Your task to perform on an android device: Clear the cart on bestbuy.com. Search for "logitech g502" on bestbuy.com, select the first entry, add it to the cart, then select checkout. Image 0: 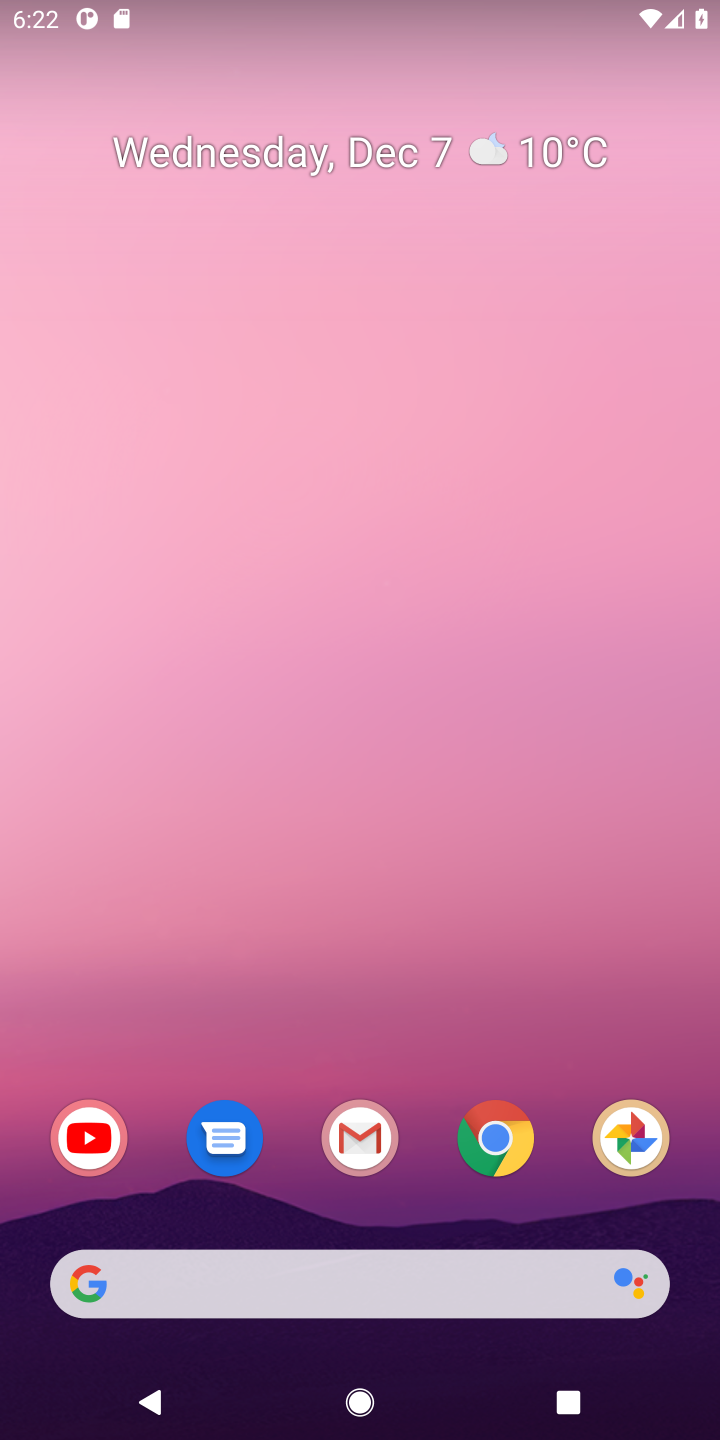
Step 0: press home button
Your task to perform on an android device: Clear the cart on bestbuy.com. Search for "logitech g502" on bestbuy.com, select the first entry, add it to the cart, then select checkout. Image 1: 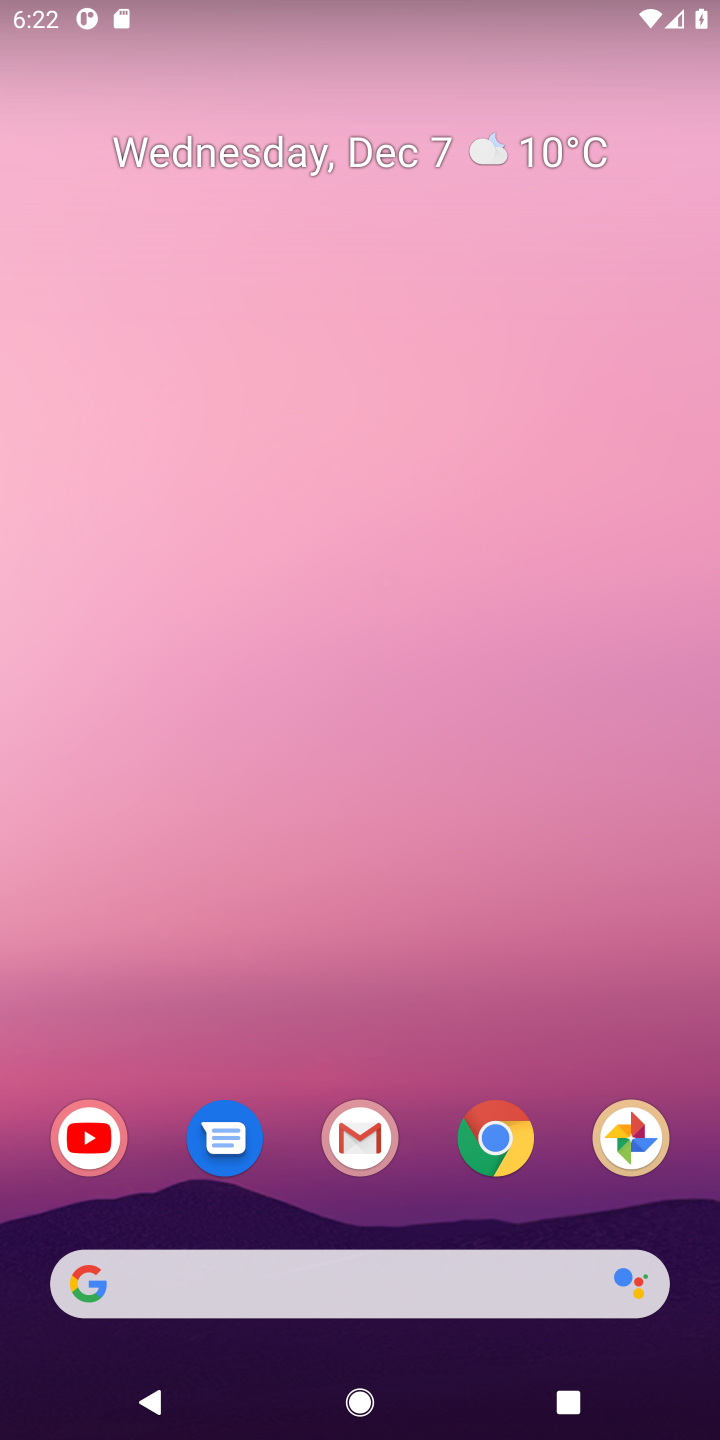
Step 1: click (140, 1283)
Your task to perform on an android device: Clear the cart on bestbuy.com. Search for "logitech g502" on bestbuy.com, select the first entry, add it to the cart, then select checkout. Image 2: 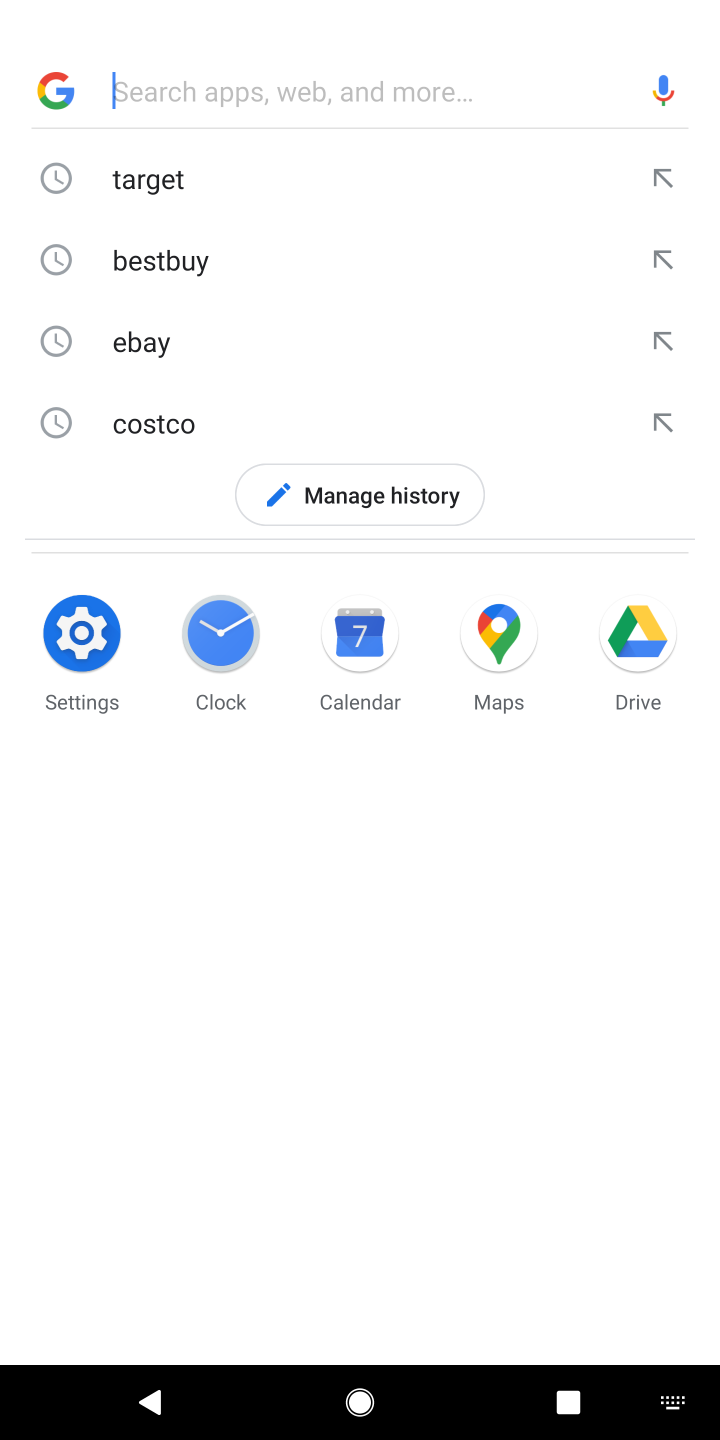
Step 2: type " bestbuy.com"
Your task to perform on an android device: Clear the cart on bestbuy.com. Search for "logitech g502" on bestbuy.com, select the first entry, add it to the cart, then select checkout. Image 3: 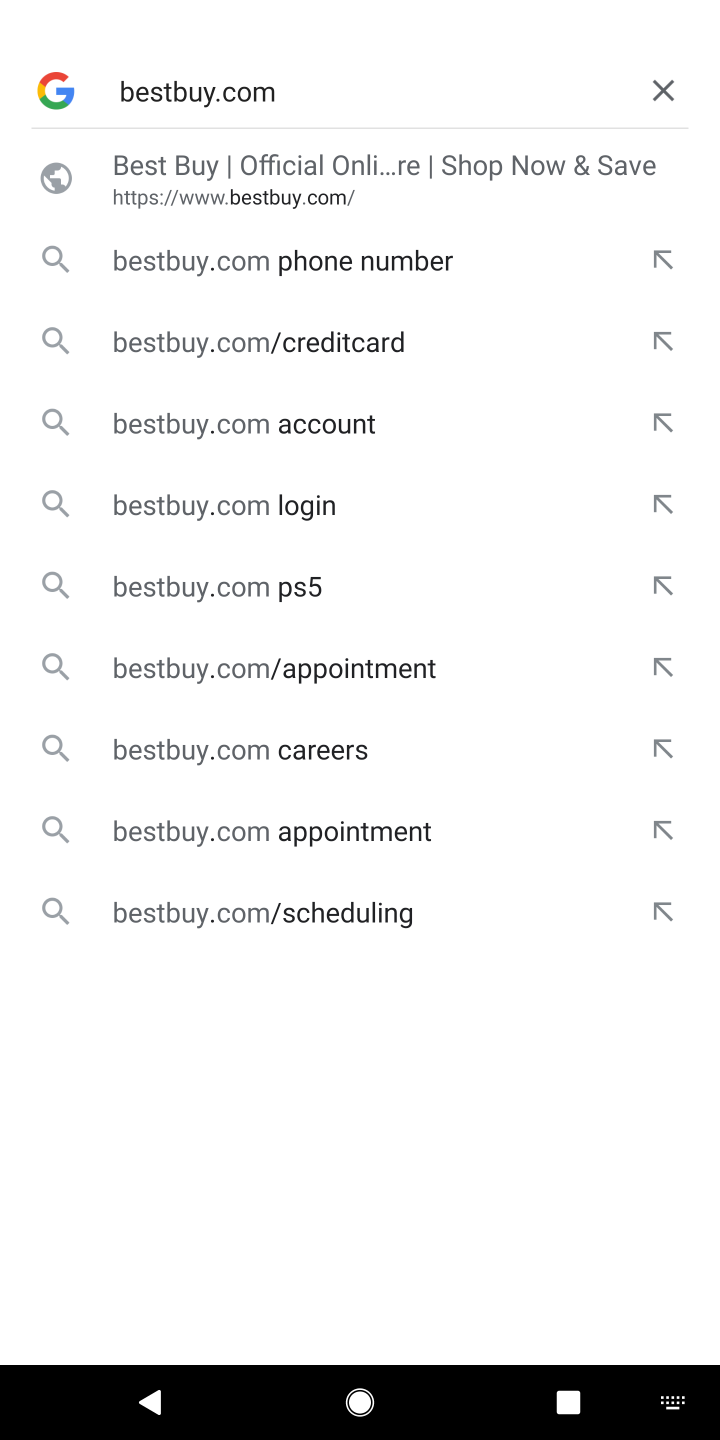
Step 3: press enter
Your task to perform on an android device: Clear the cart on bestbuy.com. Search for "logitech g502" on bestbuy.com, select the first entry, add it to the cart, then select checkout. Image 4: 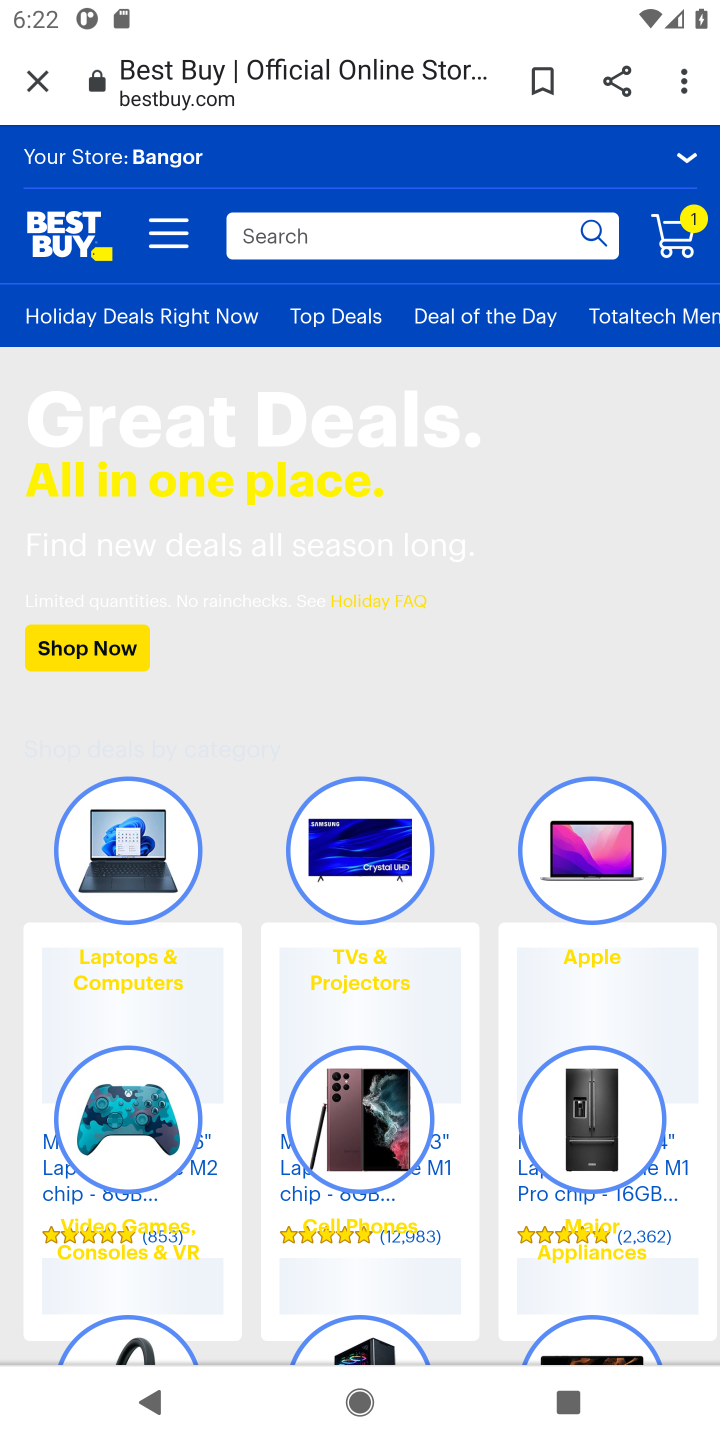
Step 4: click (674, 233)
Your task to perform on an android device: Clear the cart on bestbuy.com. Search for "logitech g502" on bestbuy.com, select the first entry, add it to the cart, then select checkout. Image 5: 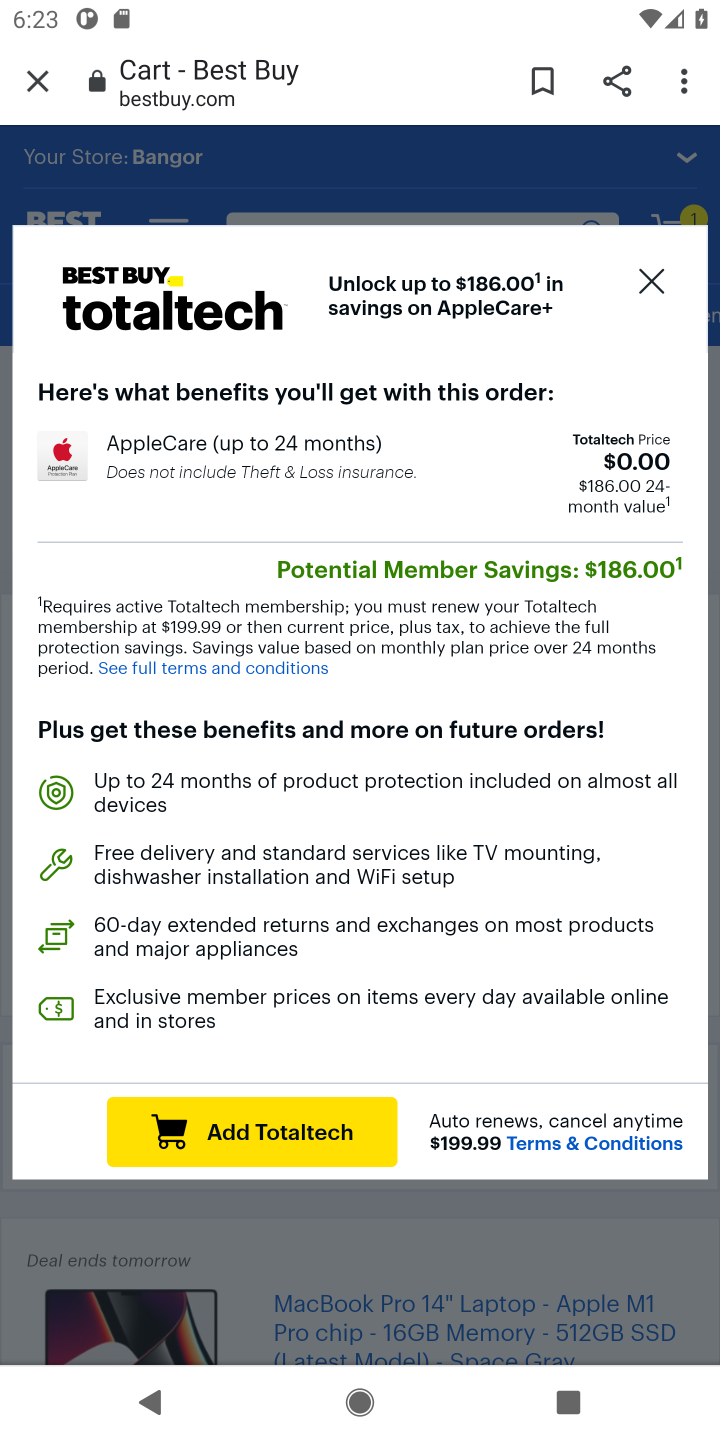
Step 5: click (649, 284)
Your task to perform on an android device: Clear the cart on bestbuy.com. Search for "logitech g502" on bestbuy.com, select the first entry, add it to the cart, then select checkout. Image 6: 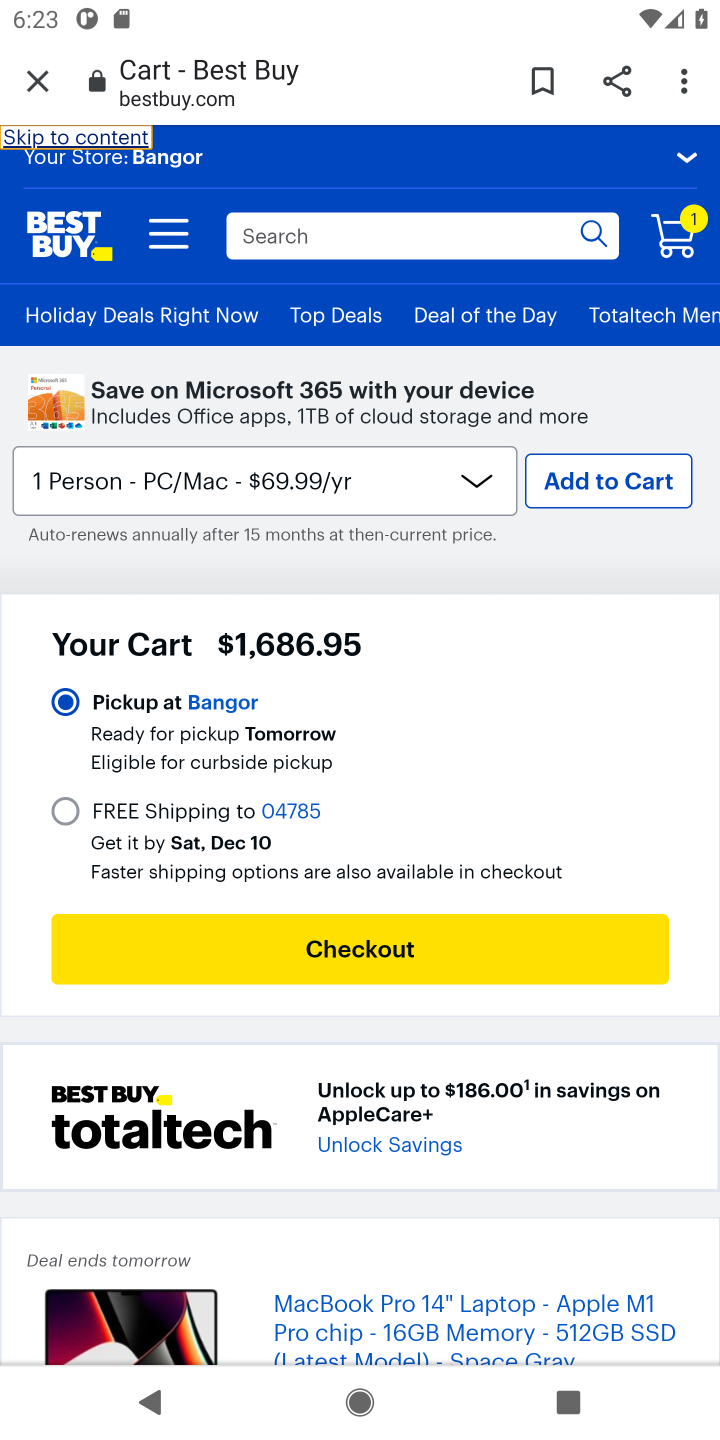
Step 6: drag from (280, 1139) to (355, 622)
Your task to perform on an android device: Clear the cart on bestbuy.com. Search for "logitech g502" on bestbuy.com, select the first entry, add it to the cart, then select checkout. Image 7: 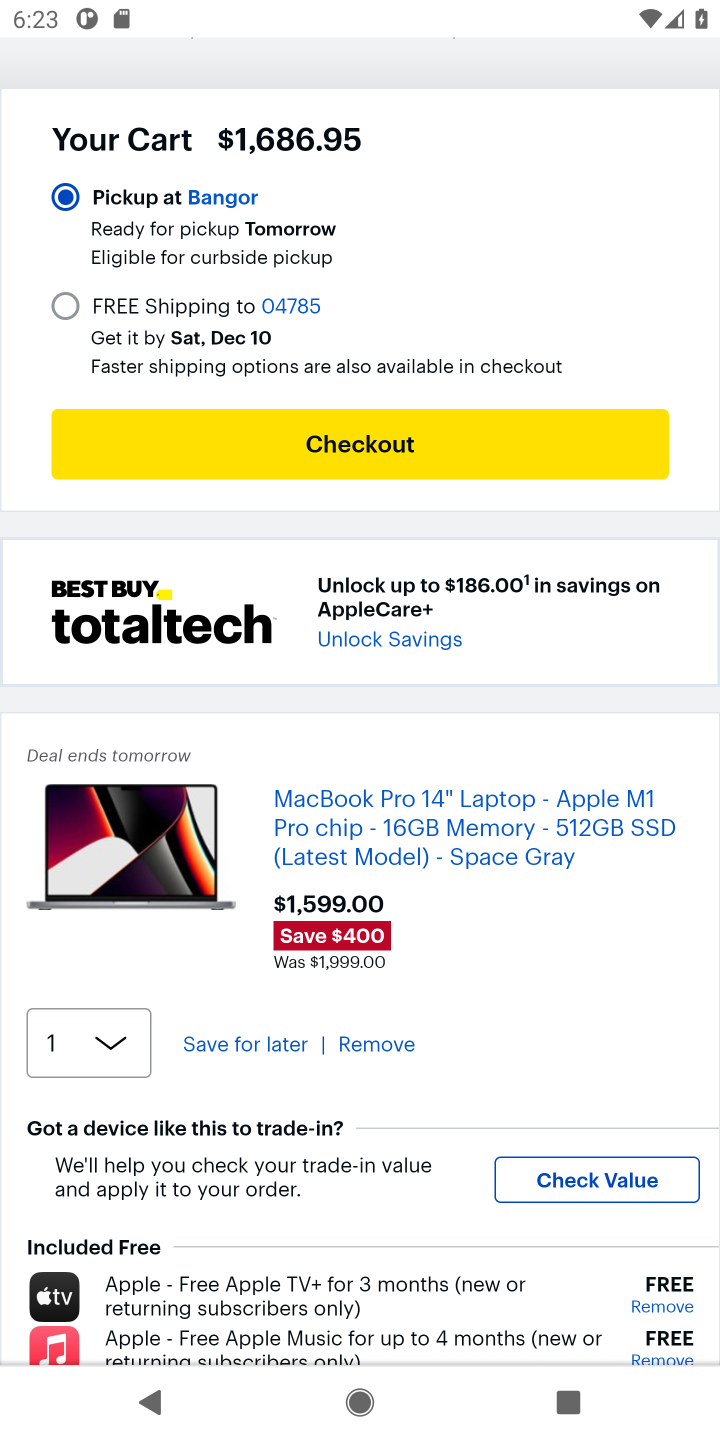
Step 7: click (375, 1039)
Your task to perform on an android device: Clear the cart on bestbuy.com. Search for "logitech g502" on bestbuy.com, select the first entry, add it to the cart, then select checkout. Image 8: 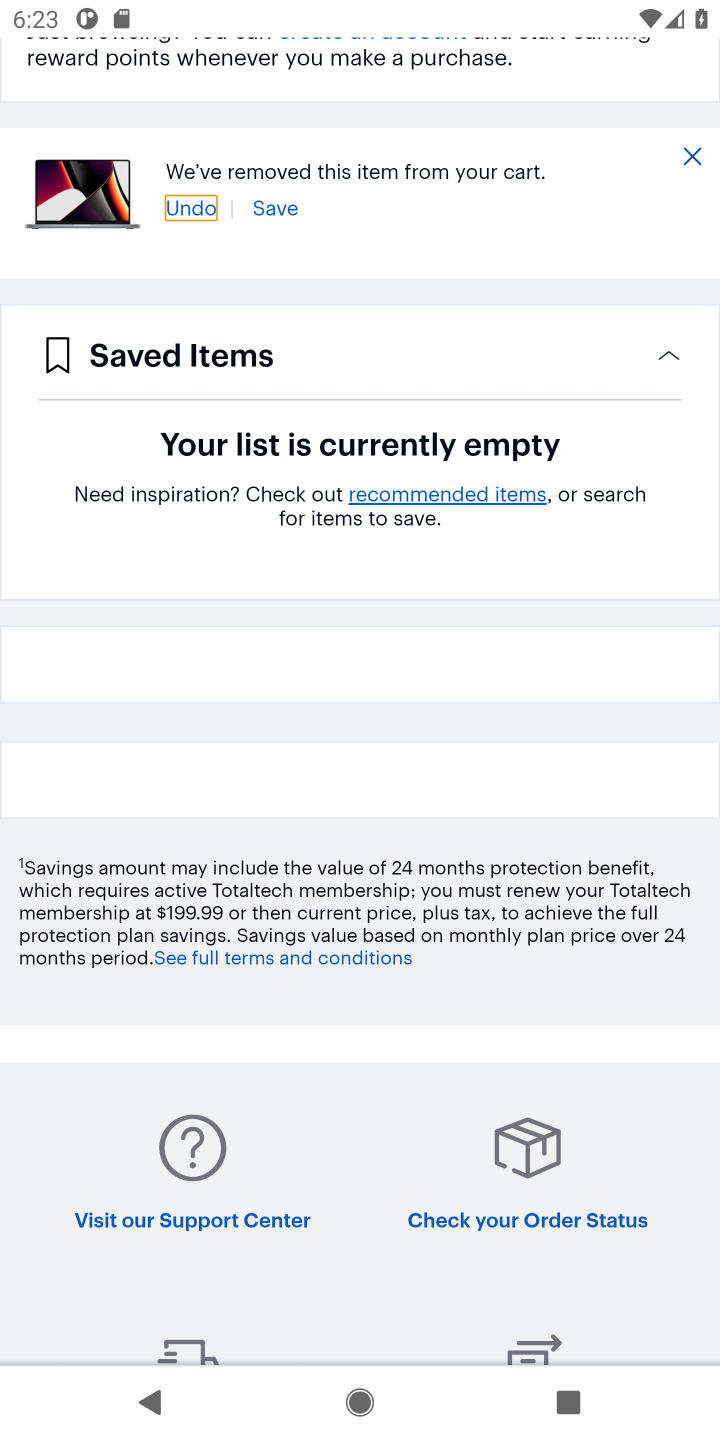
Step 8: drag from (498, 319) to (380, 1180)
Your task to perform on an android device: Clear the cart on bestbuy.com. Search for "logitech g502" on bestbuy.com, select the first entry, add it to the cart, then select checkout. Image 9: 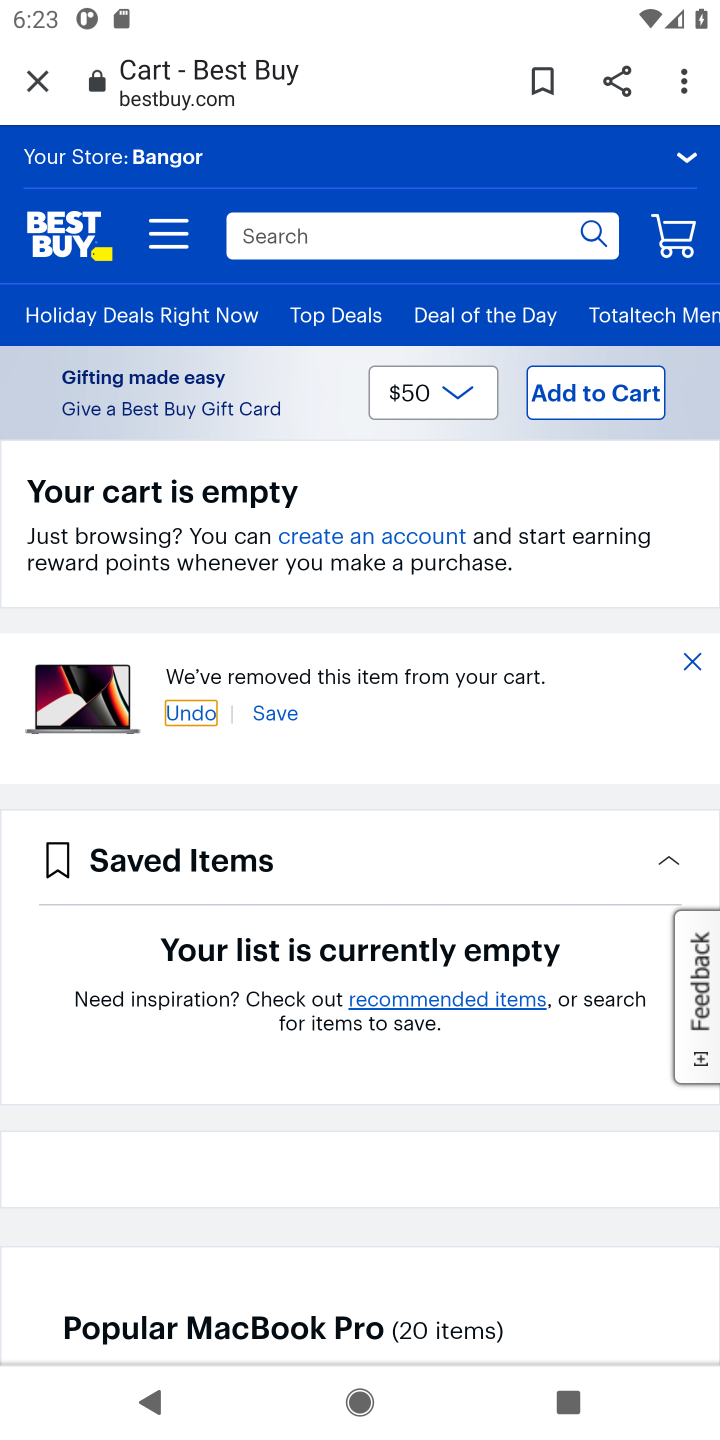
Step 9: click (308, 227)
Your task to perform on an android device: Clear the cart on bestbuy.com. Search for "logitech g502" on bestbuy.com, select the first entry, add it to the cart, then select checkout. Image 10: 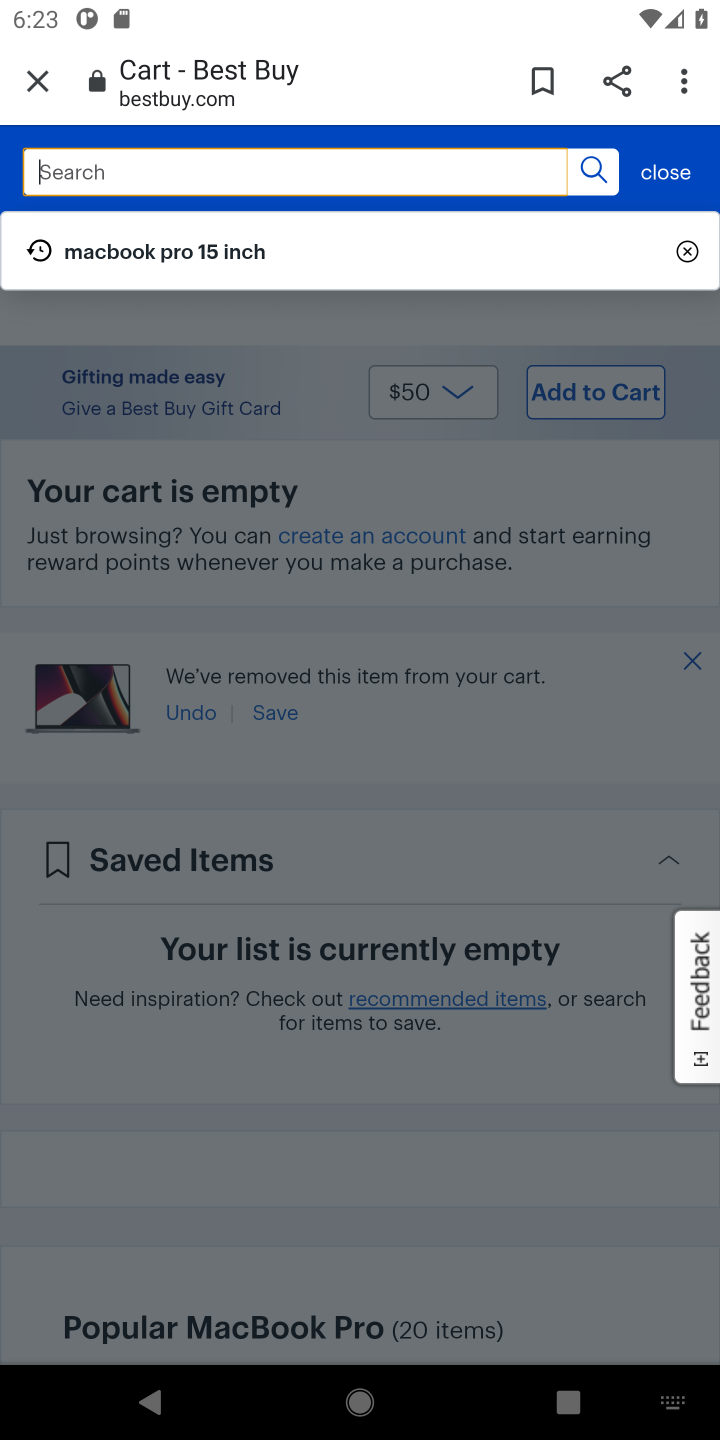
Step 10: press enter
Your task to perform on an android device: Clear the cart on bestbuy.com. Search for "logitech g502" on bestbuy.com, select the first entry, add it to the cart, then select checkout. Image 11: 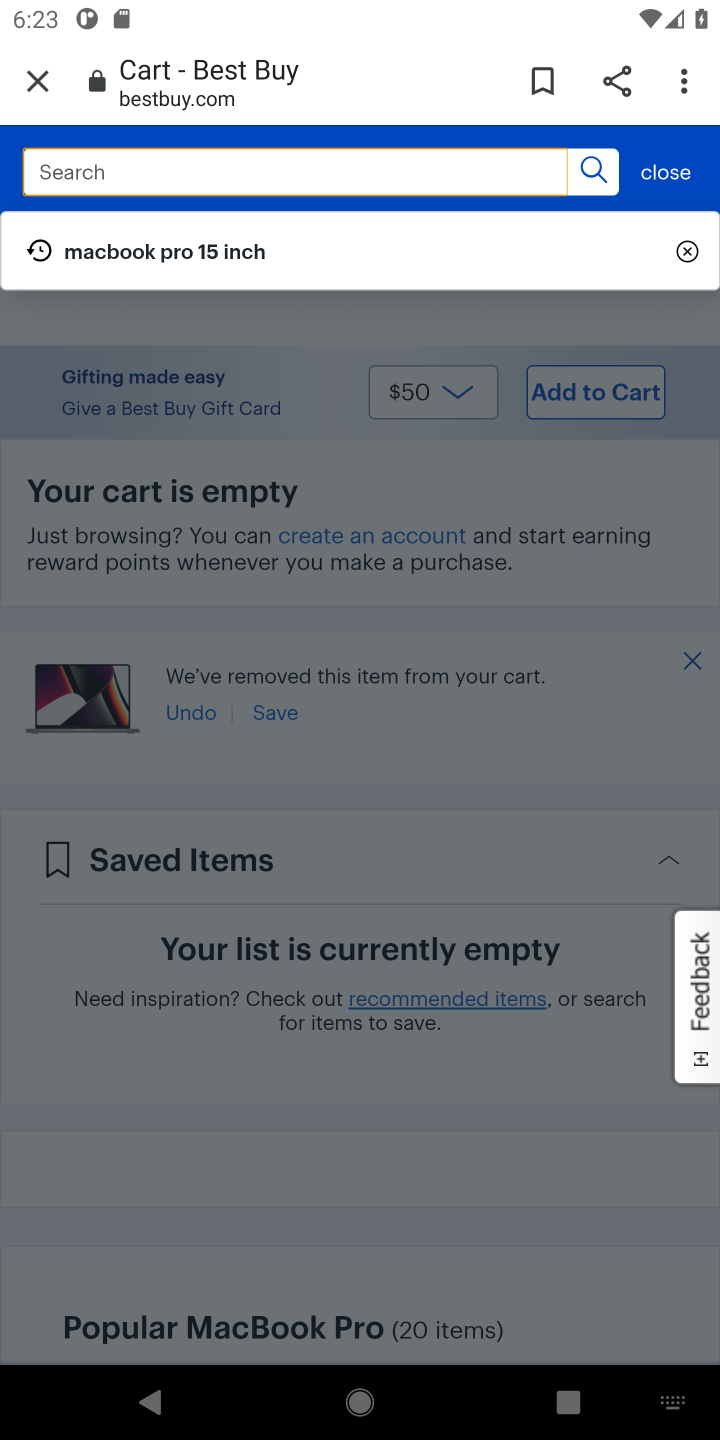
Step 11: type "logitech g502"
Your task to perform on an android device: Clear the cart on bestbuy.com. Search for "logitech g502" on bestbuy.com, select the first entry, add it to the cart, then select checkout. Image 12: 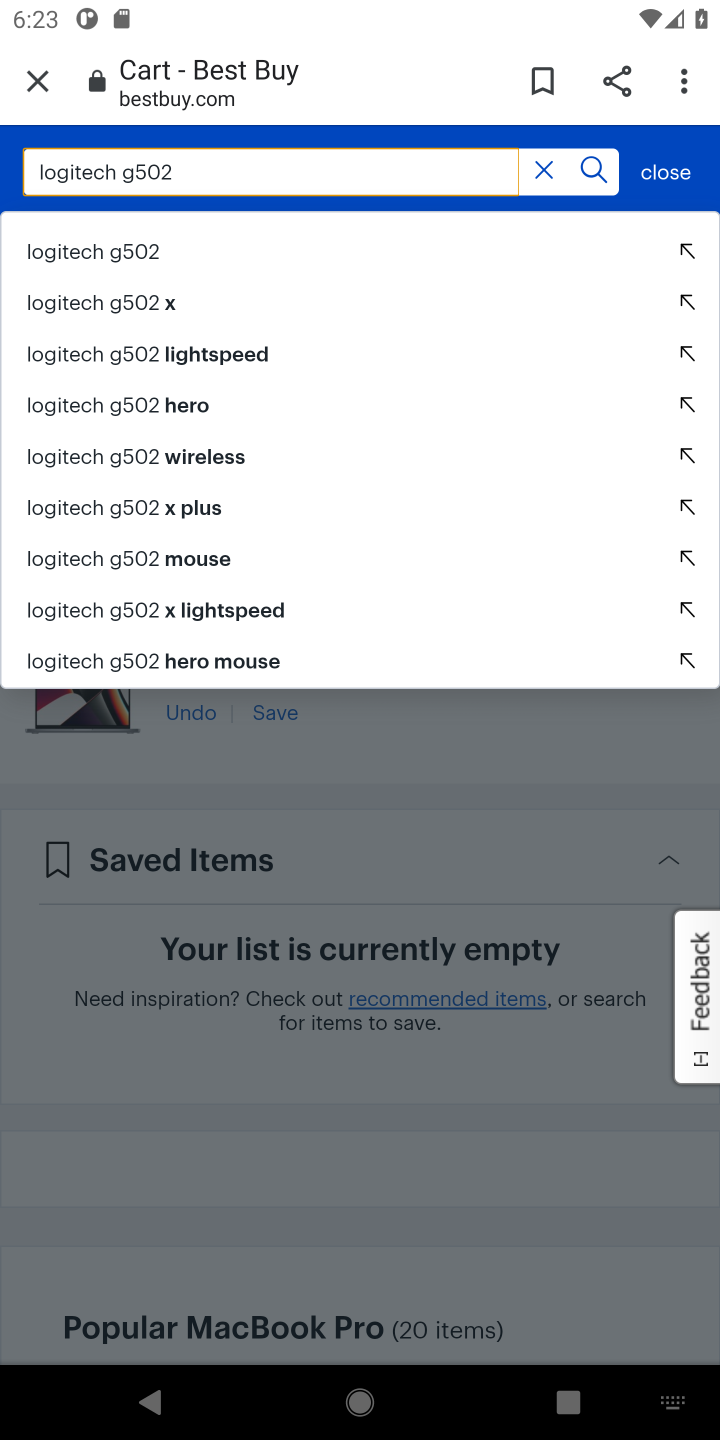
Step 12: click (127, 243)
Your task to perform on an android device: Clear the cart on bestbuy.com. Search for "logitech g502" on bestbuy.com, select the first entry, add it to the cart, then select checkout. Image 13: 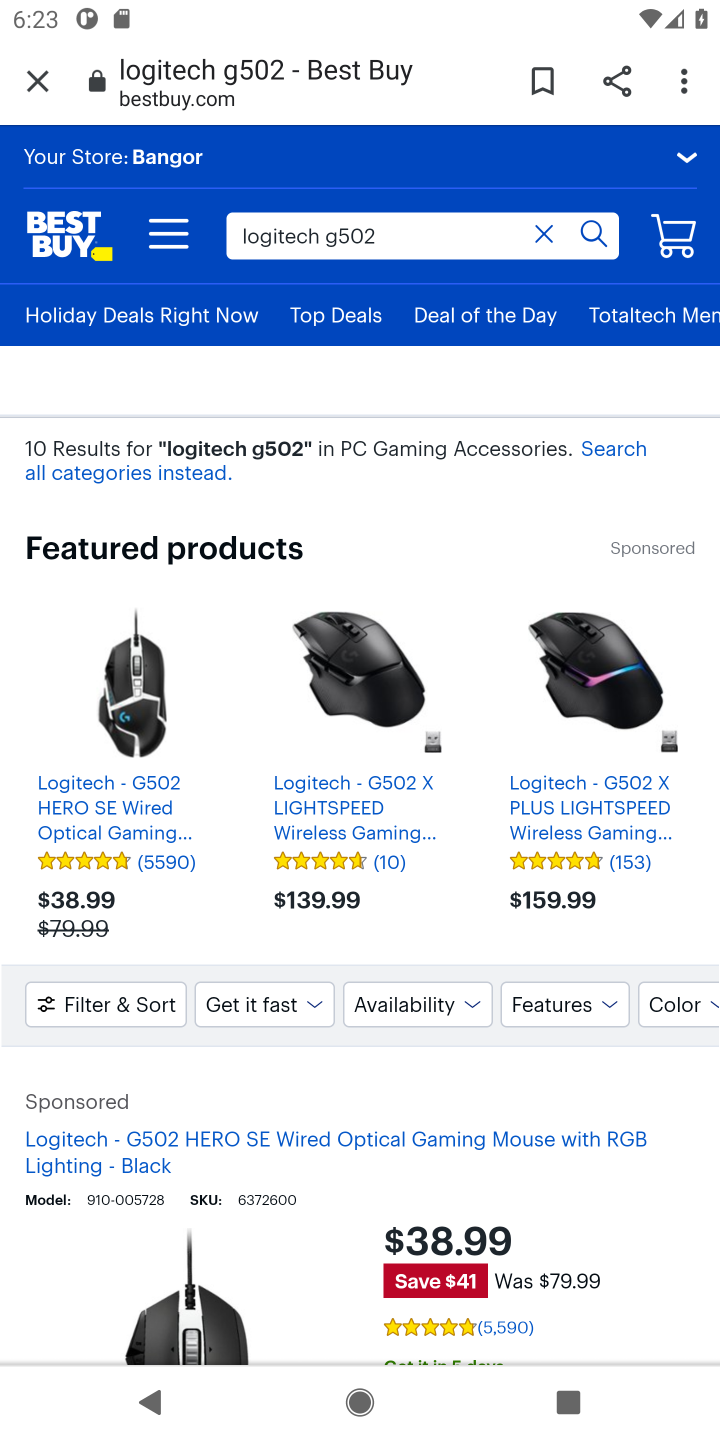
Step 13: drag from (482, 1142) to (543, 615)
Your task to perform on an android device: Clear the cart on bestbuy.com. Search for "logitech g502" on bestbuy.com, select the first entry, add it to the cart, then select checkout. Image 14: 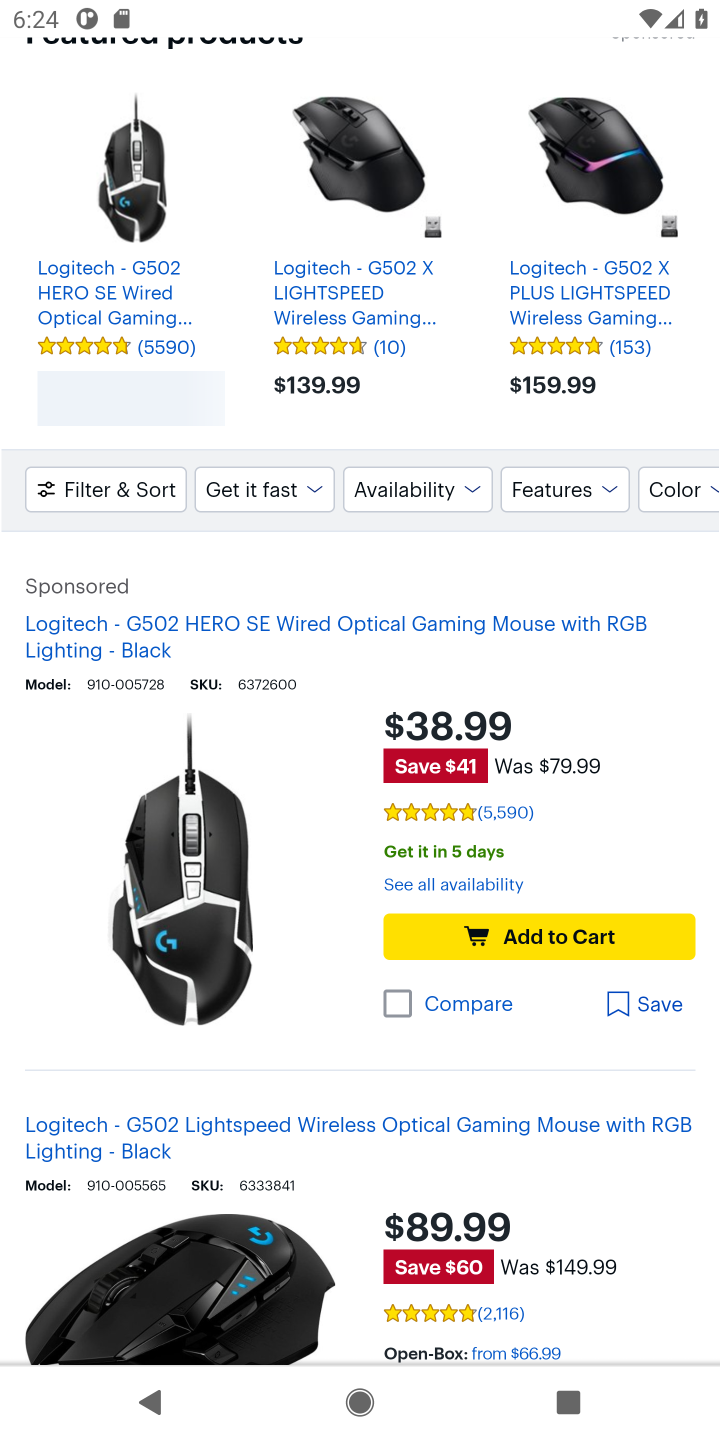
Step 14: click (571, 940)
Your task to perform on an android device: Clear the cart on bestbuy.com. Search for "logitech g502" on bestbuy.com, select the first entry, add it to the cart, then select checkout. Image 15: 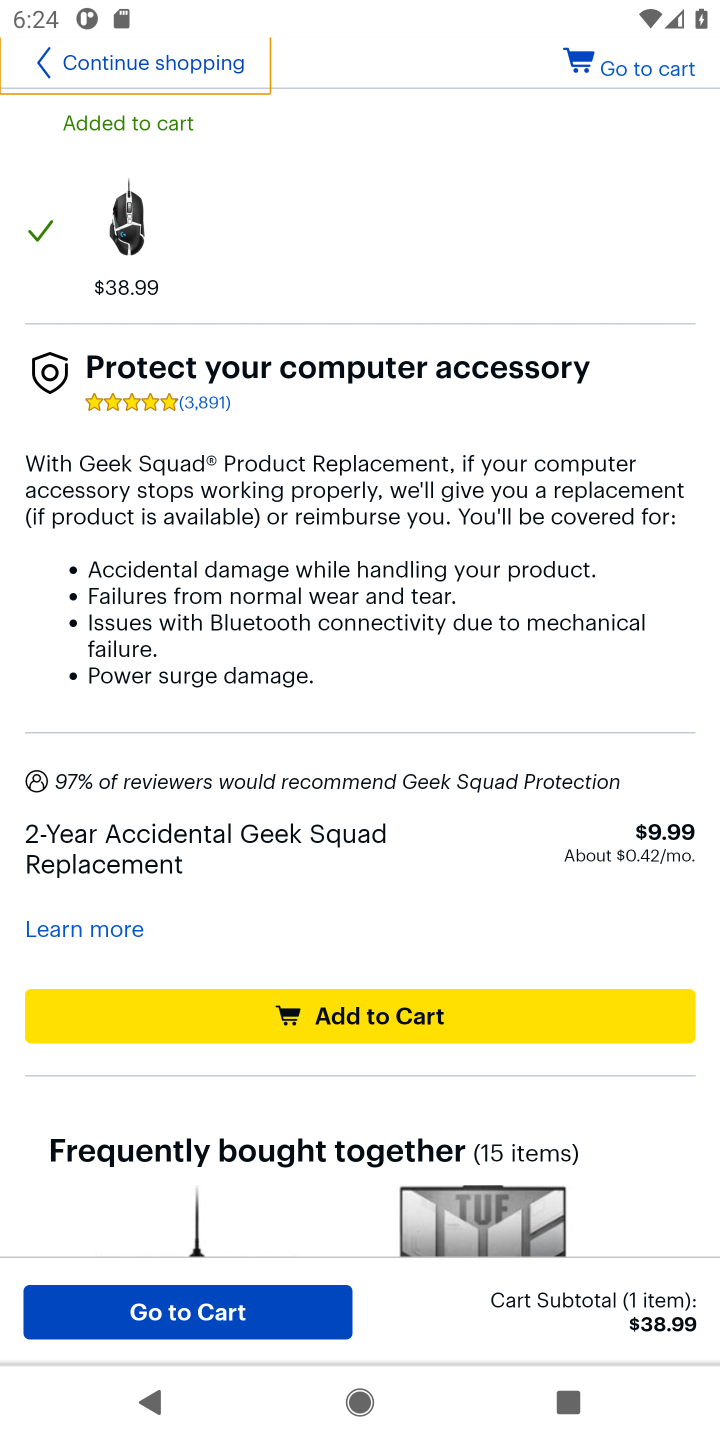
Step 15: task complete